Your task to perform on an android device: read, delete, or share a saved page in the chrome app Image 0: 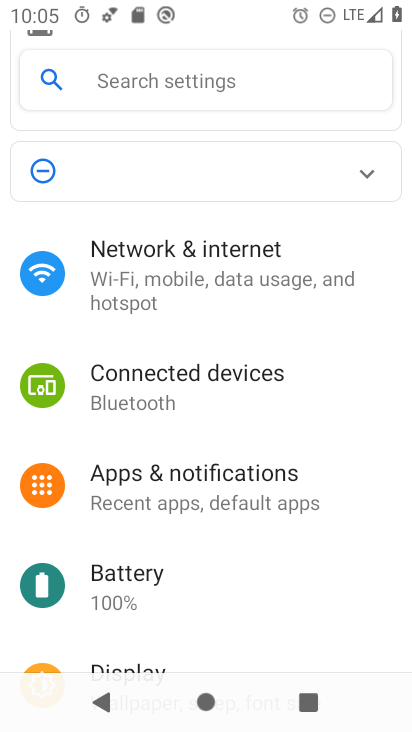
Step 0: press home button
Your task to perform on an android device: read, delete, or share a saved page in the chrome app Image 1: 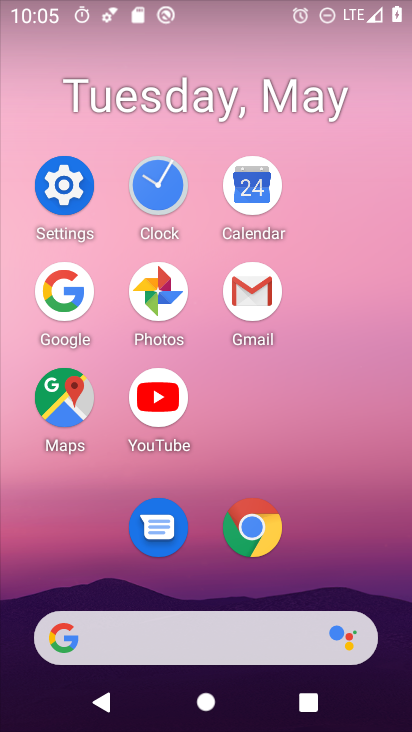
Step 1: click (261, 548)
Your task to perform on an android device: read, delete, or share a saved page in the chrome app Image 2: 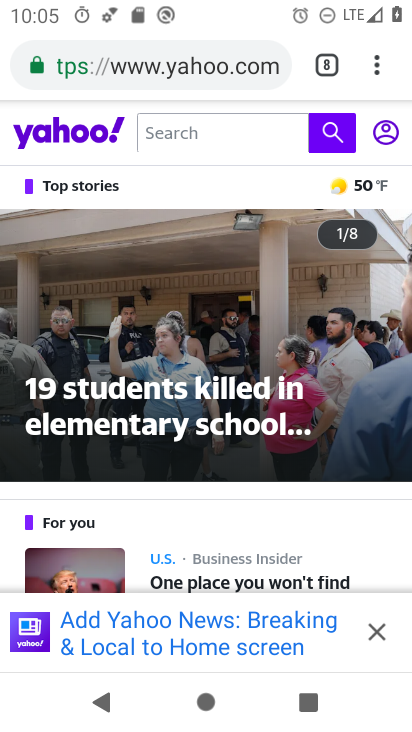
Step 2: click (371, 104)
Your task to perform on an android device: read, delete, or share a saved page in the chrome app Image 3: 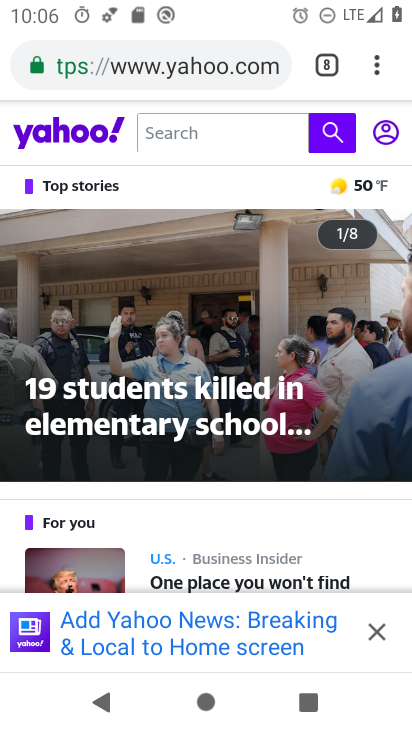
Step 3: click (368, 66)
Your task to perform on an android device: read, delete, or share a saved page in the chrome app Image 4: 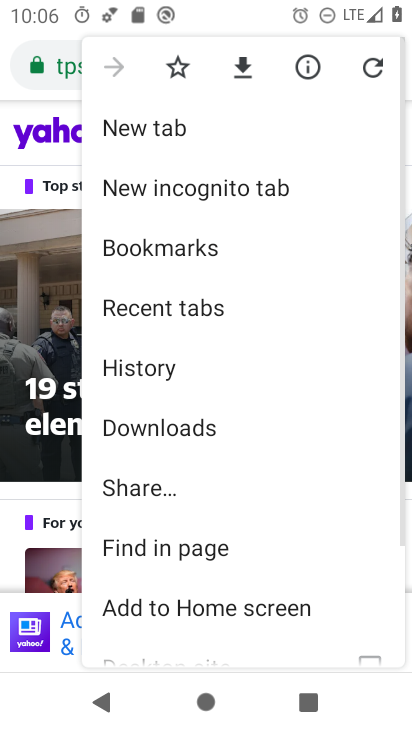
Step 4: click (224, 430)
Your task to perform on an android device: read, delete, or share a saved page in the chrome app Image 5: 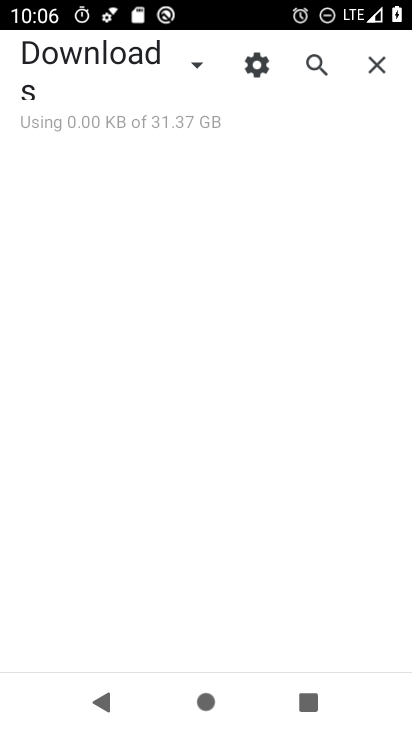
Step 5: task complete